Your task to perform on an android device: visit the assistant section in the google photos Image 0: 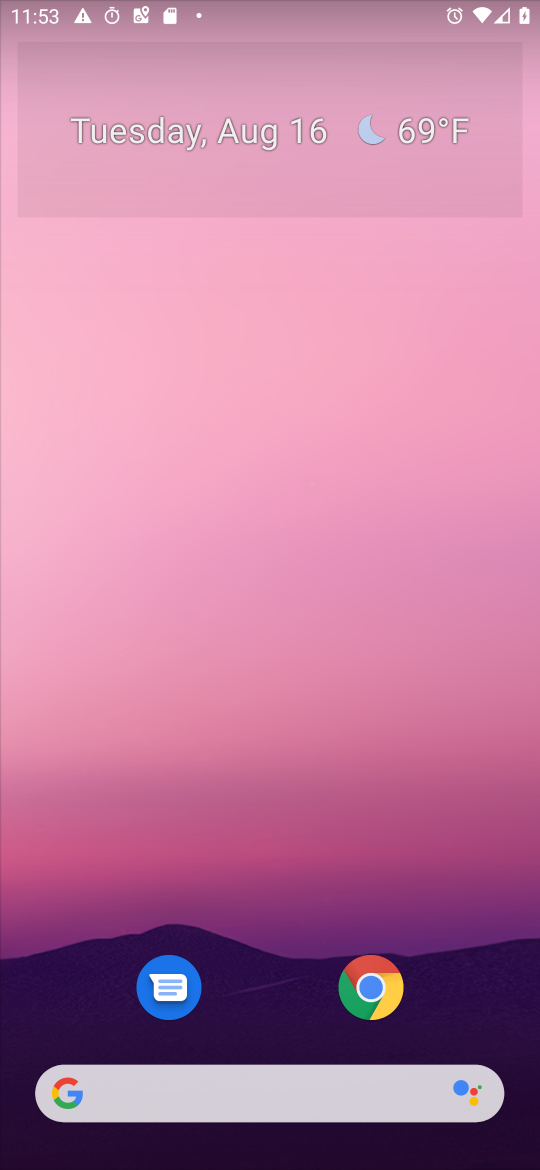
Step 0: drag from (19, 1127) to (397, 440)
Your task to perform on an android device: visit the assistant section in the google photos Image 1: 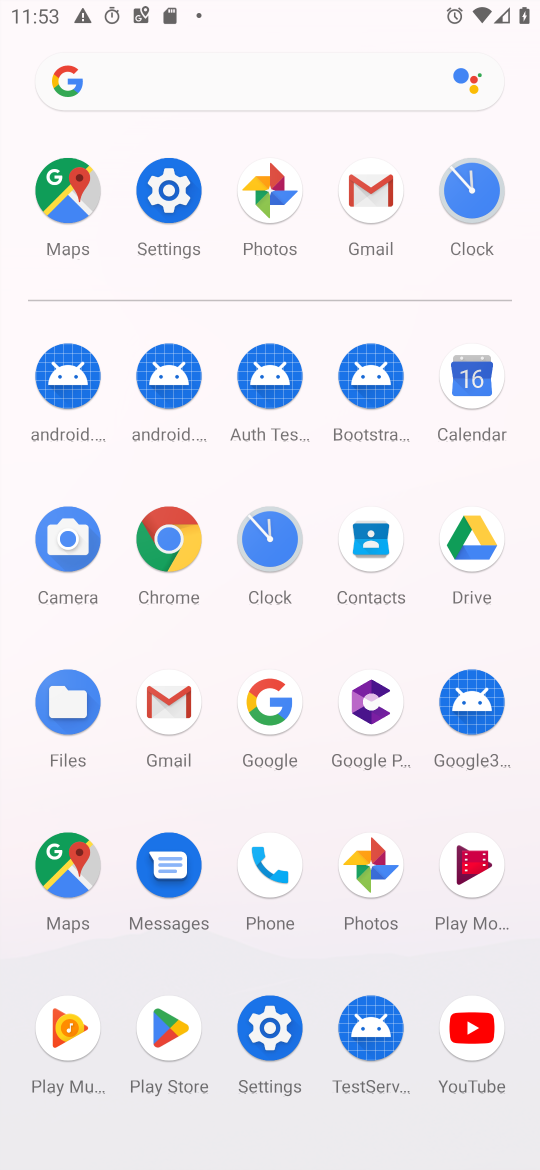
Step 1: click (363, 872)
Your task to perform on an android device: visit the assistant section in the google photos Image 2: 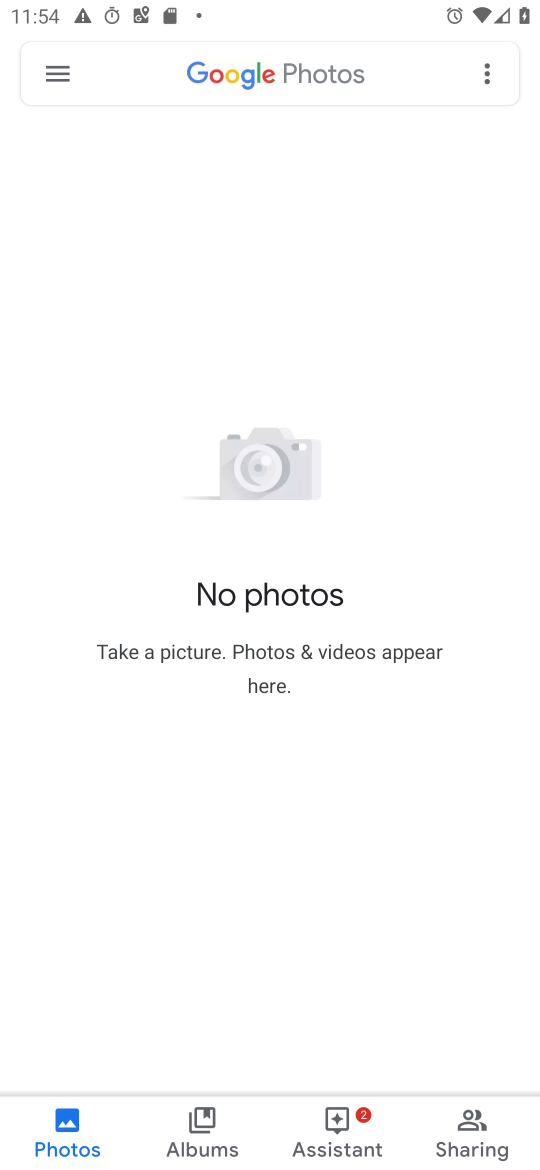
Step 2: click (344, 1124)
Your task to perform on an android device: visit the assistant section in the google photos Image 3: 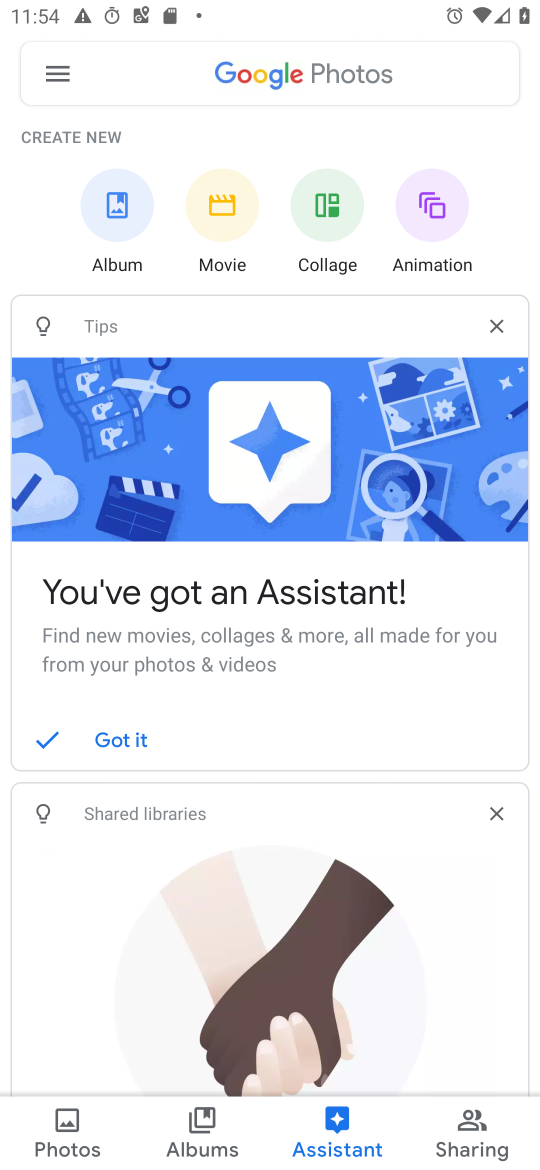
Step 3: task complete